Your task to perform on an android device: empty trash in the gmail app Image 0: 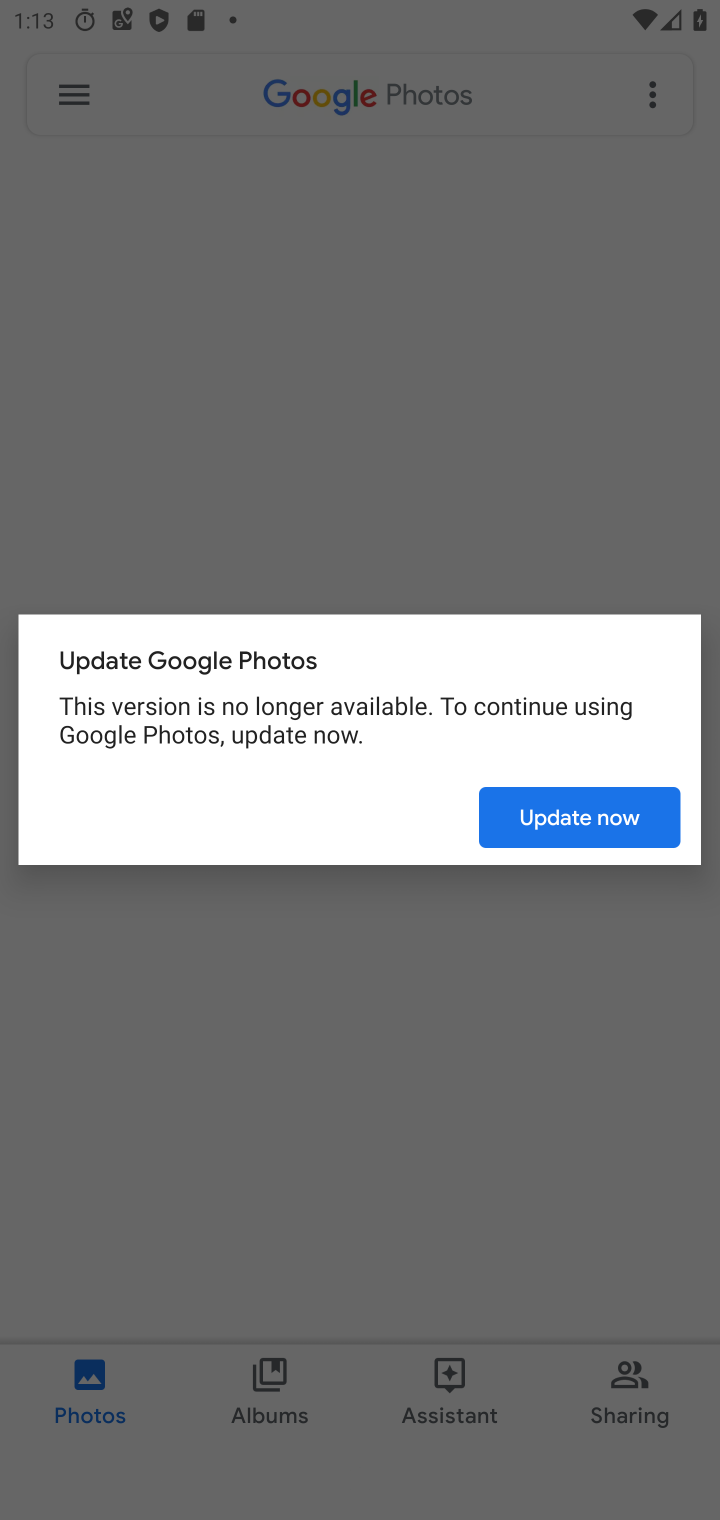
Step 0: press home button
Your task to perform on an android device: empty trash in the gmail app Image 1: 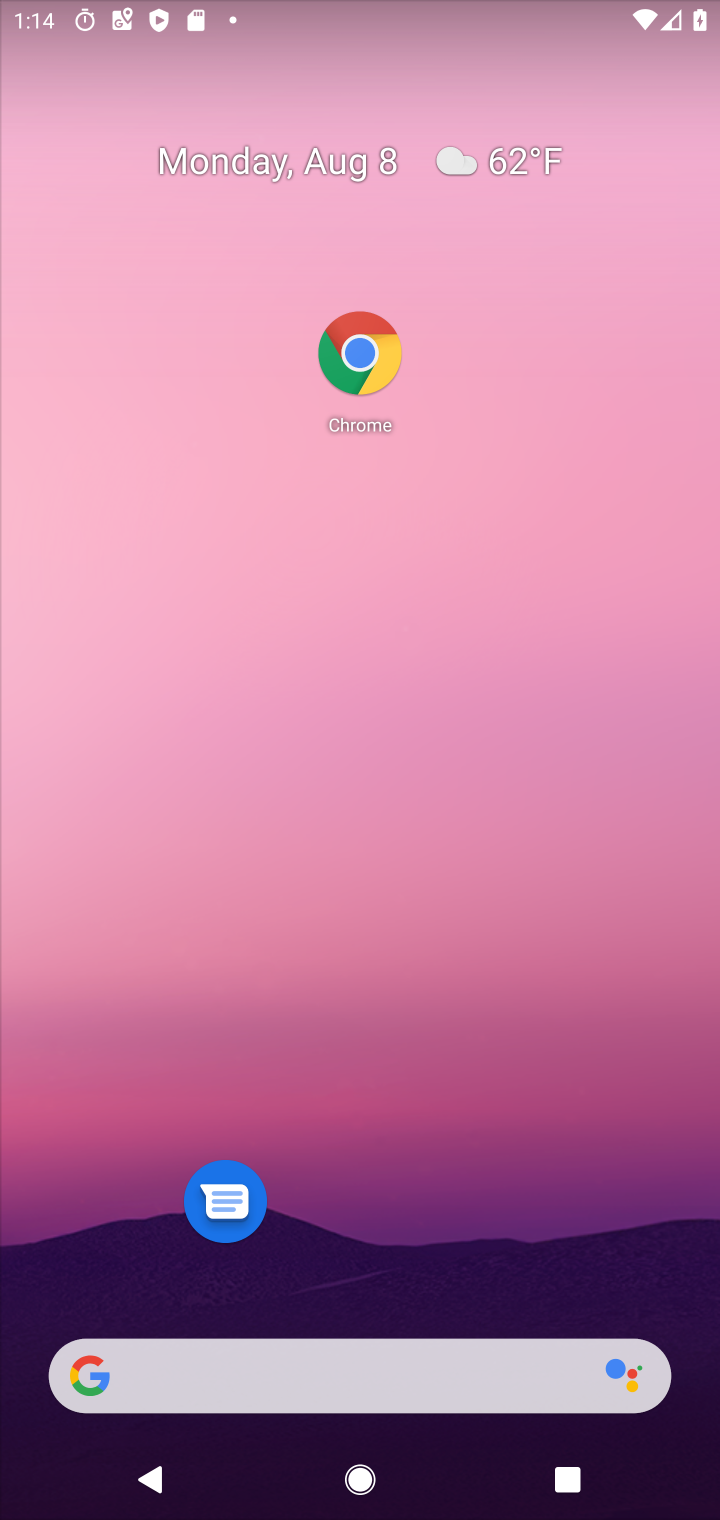
Step 1: drag from (430, 1411) to (555, 224)
Your task to perform on an android device: empty trash in the gmail app Image 2: 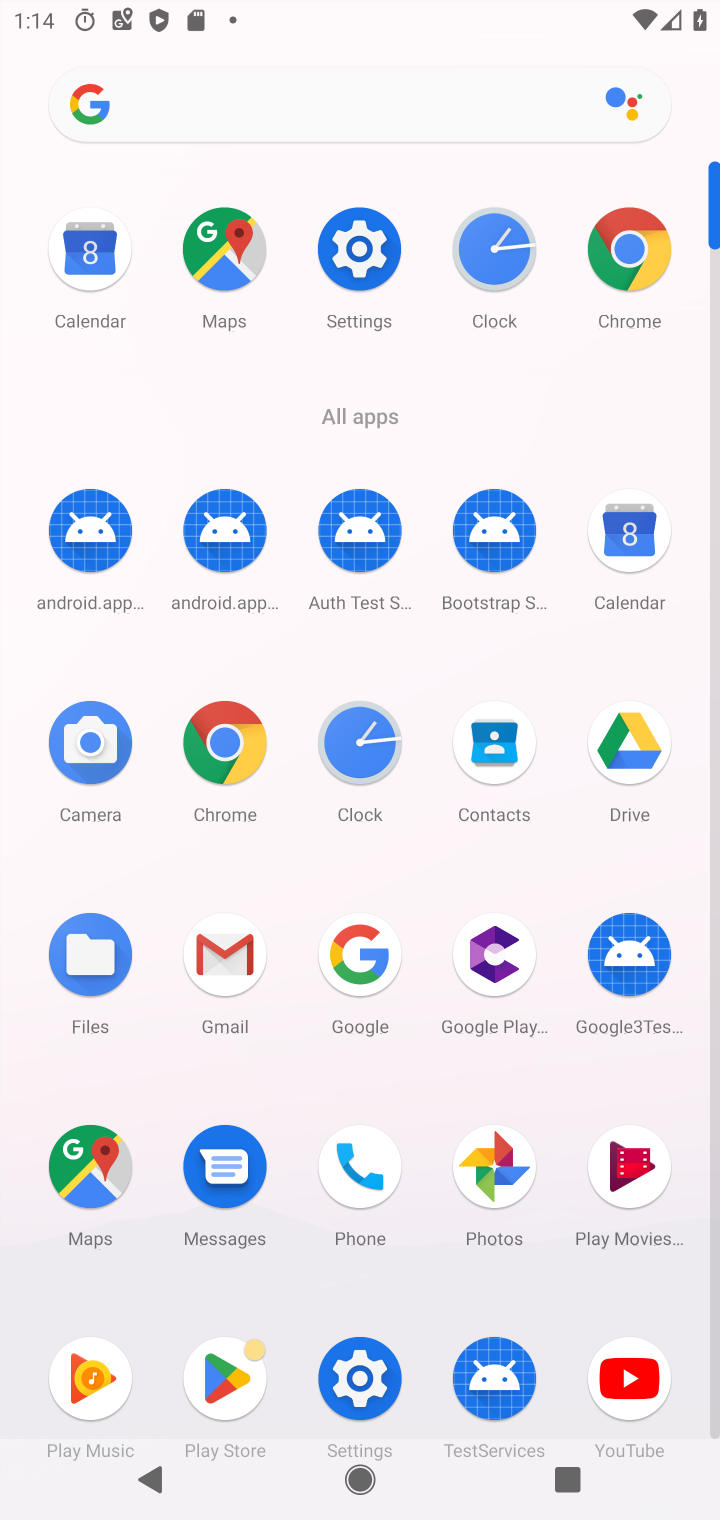
Step 2: drag from (192, 976) to (591, 1314)
Your task to perform on an android device: empty trash in the gmail app Image 3: 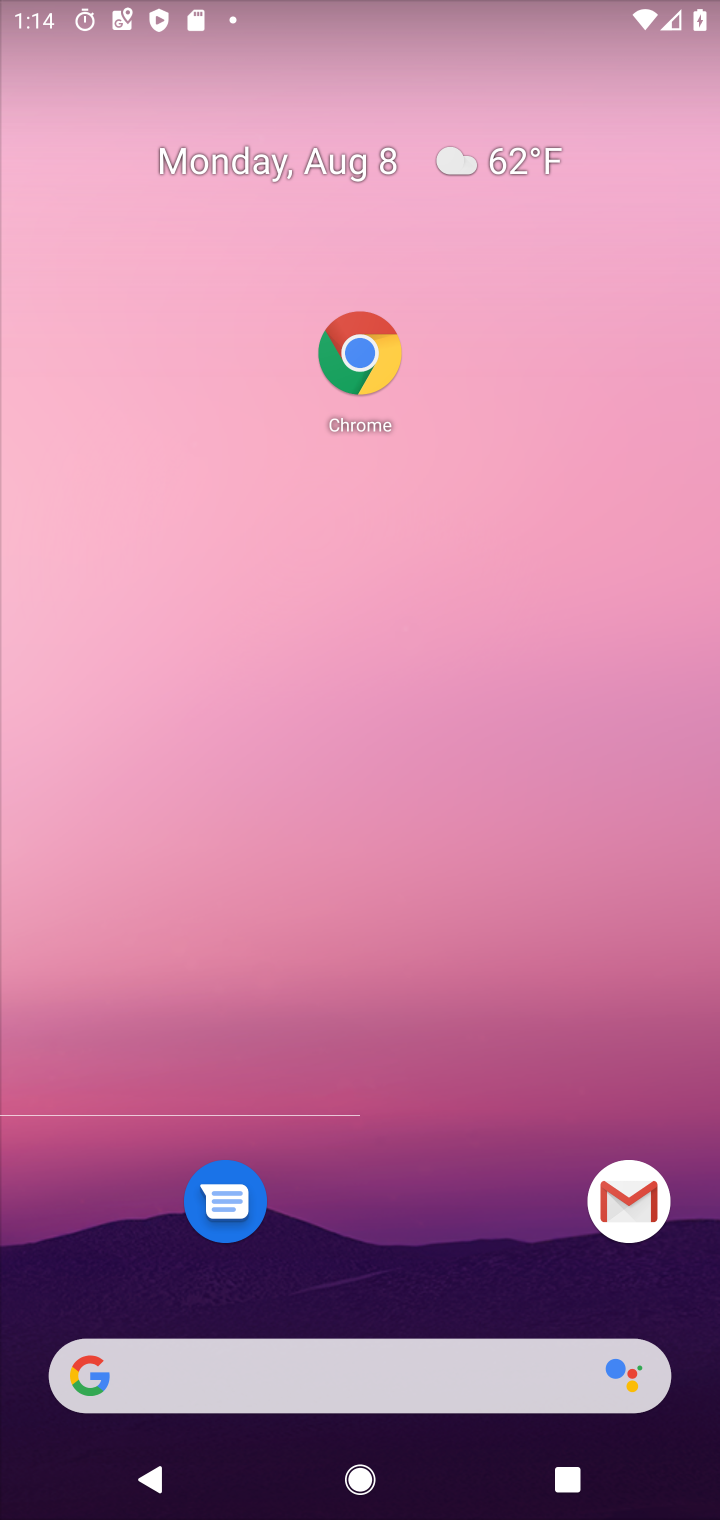
Step 3: click (624, 1193)
Your task to perform on an android device: empty trash in the gmail app Image 4: 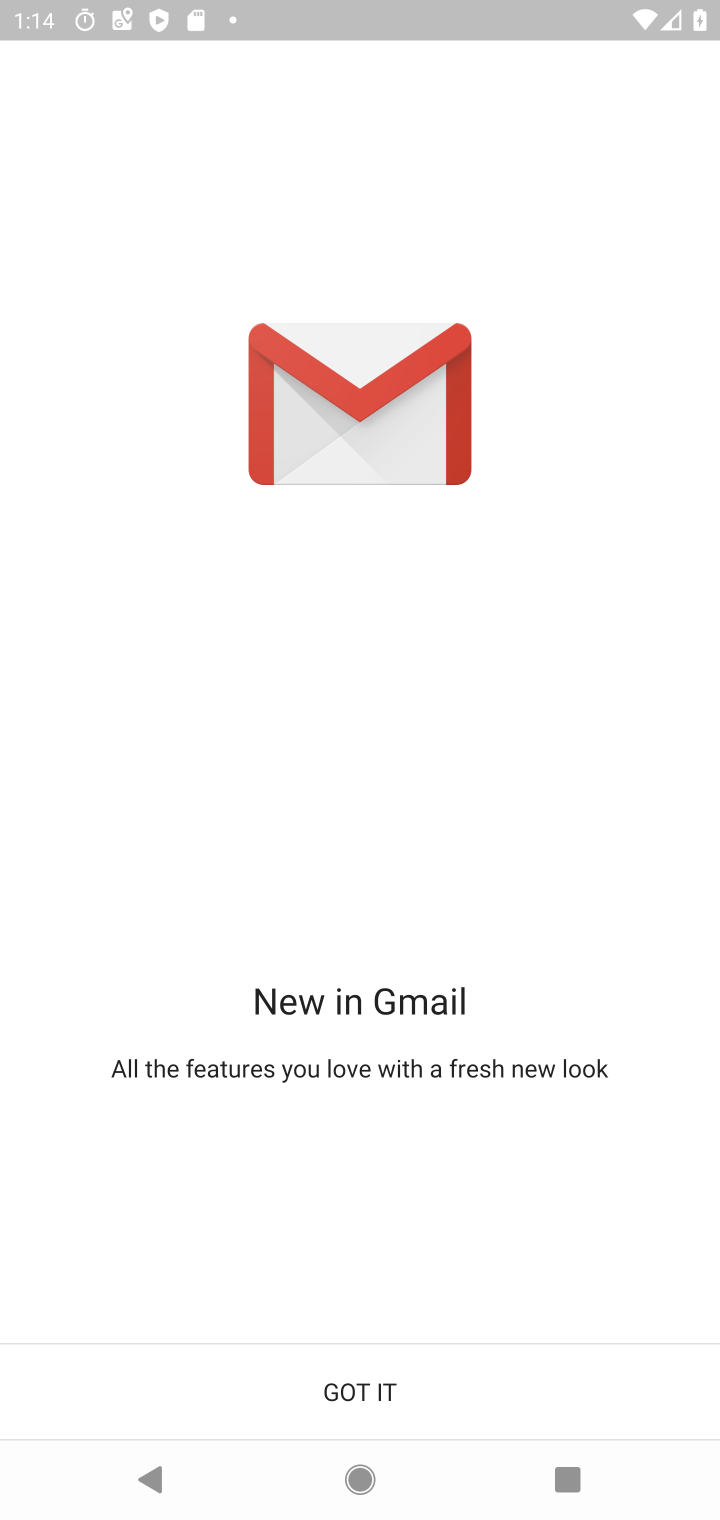
Step 4: click (396, 1386)
Your task to perform on an android device: empty trash in the gmail app Image 5: 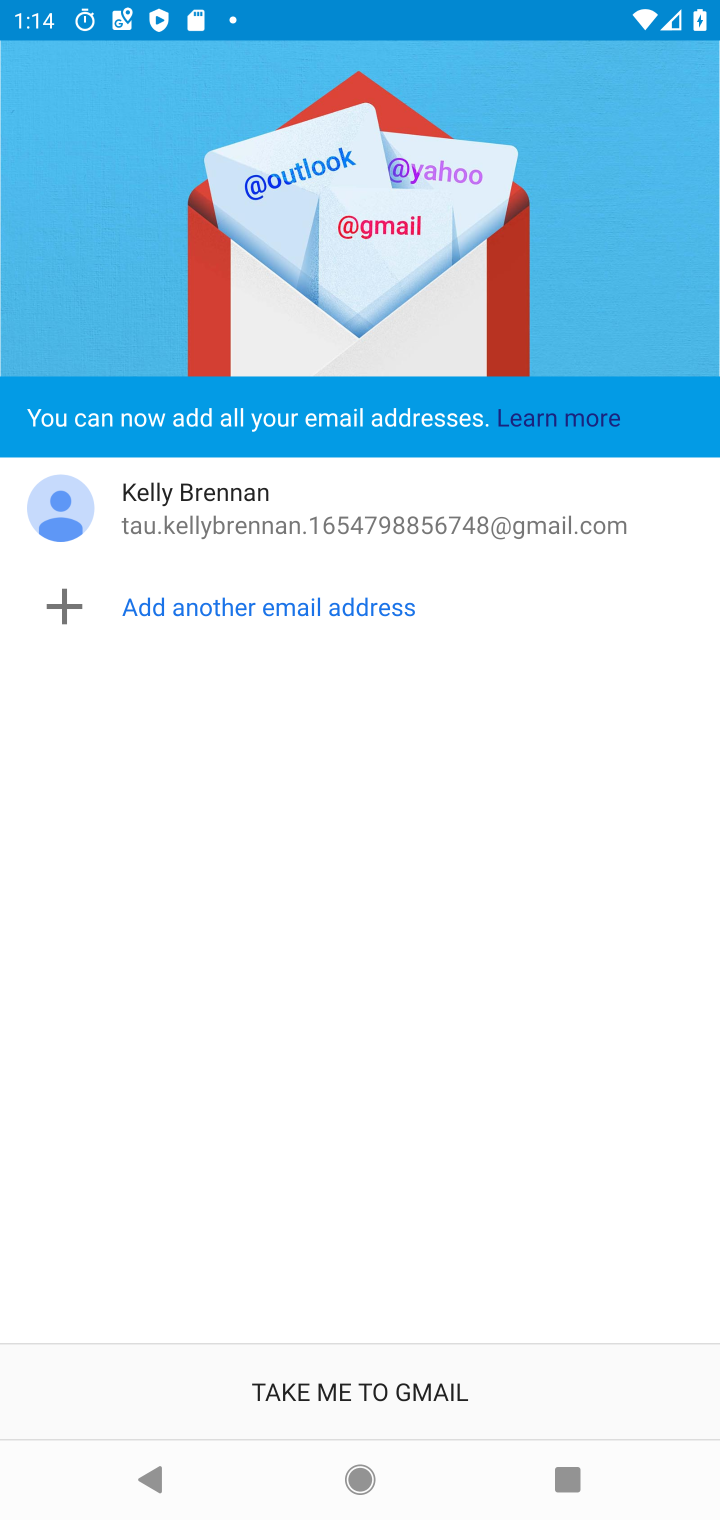
Step 5: click (383, 1356)
Your task to perform on an android device: empty trash in the gmail app Image 6: 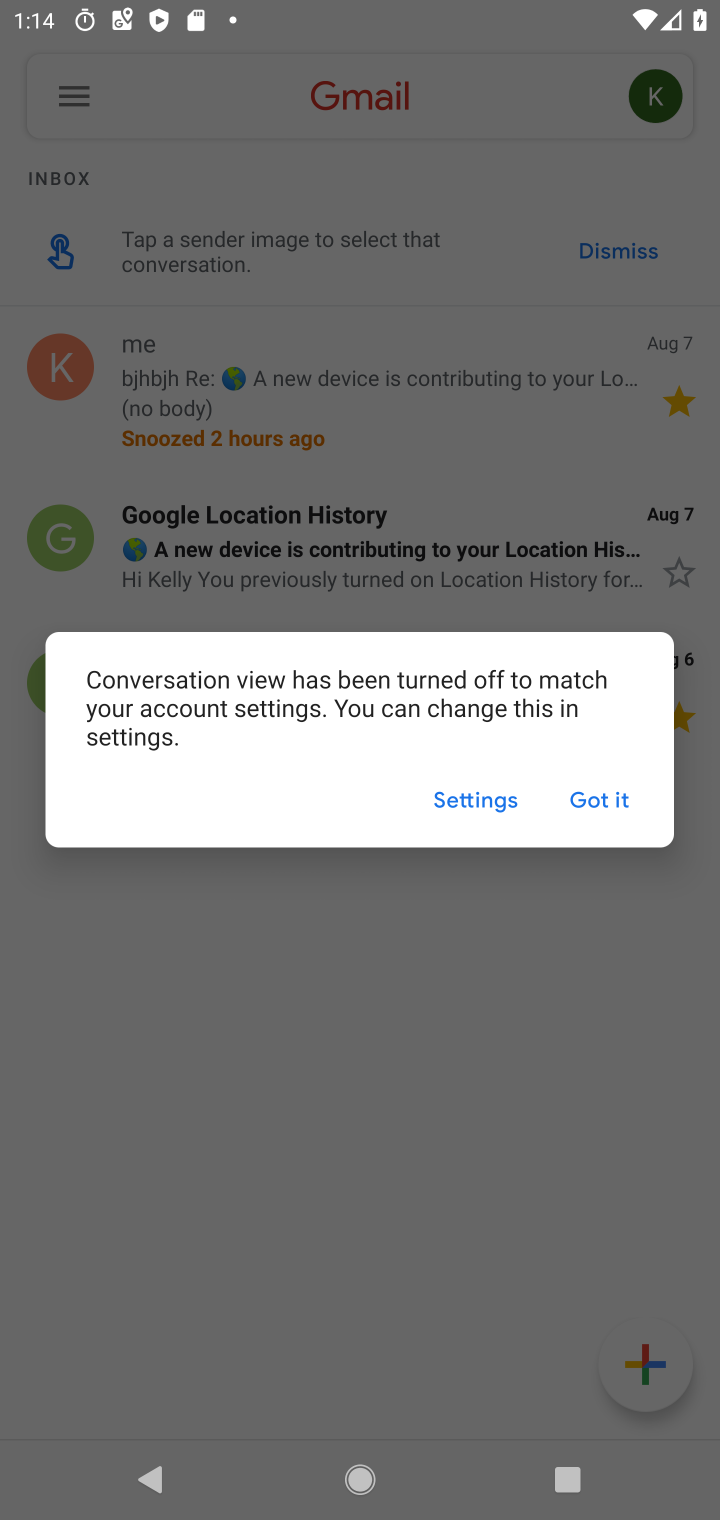
Step 6: click (590, 791)
Your task to perform on an android device: empty trash in the gmail app Image 7: 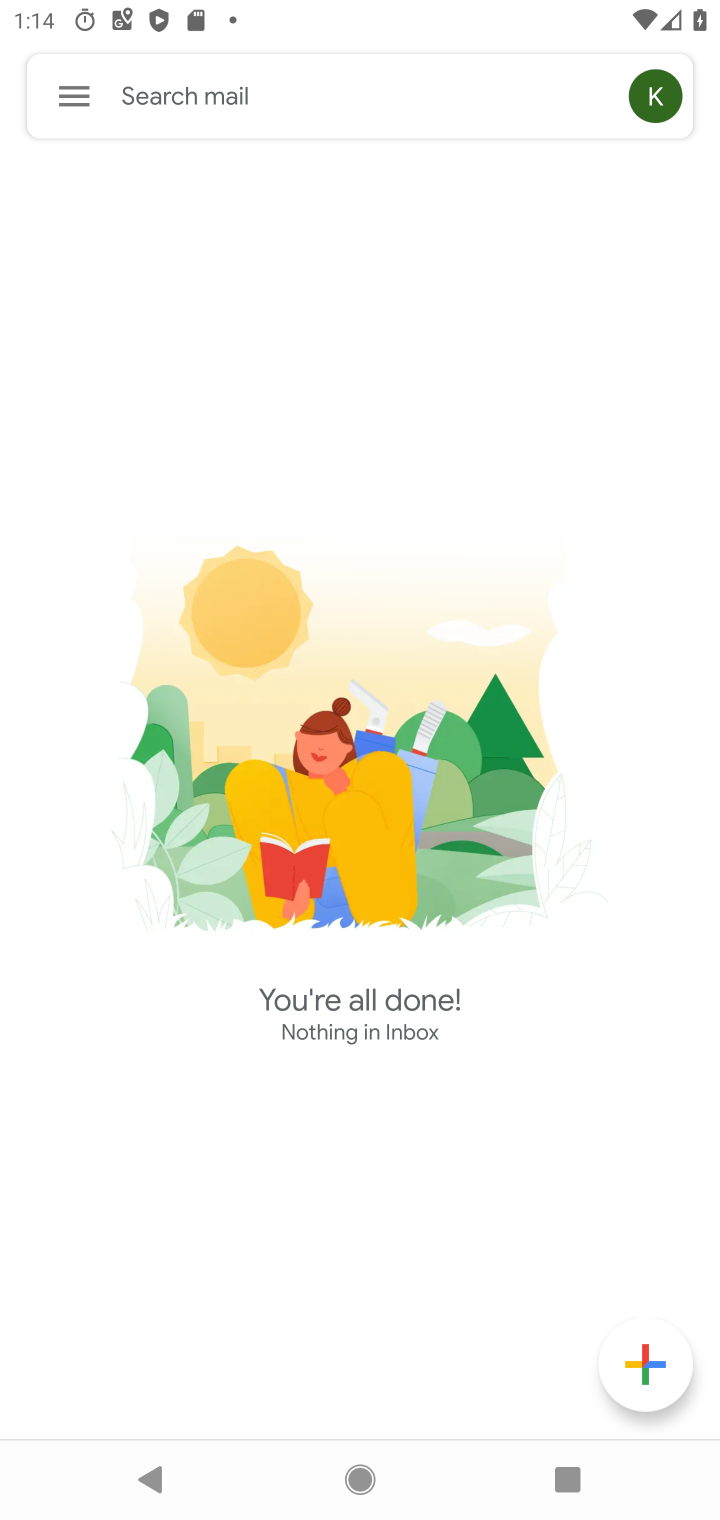
Step 7: click (77, 109)
Your task to perform on an android device: empty trash in the gmail app Image 8: 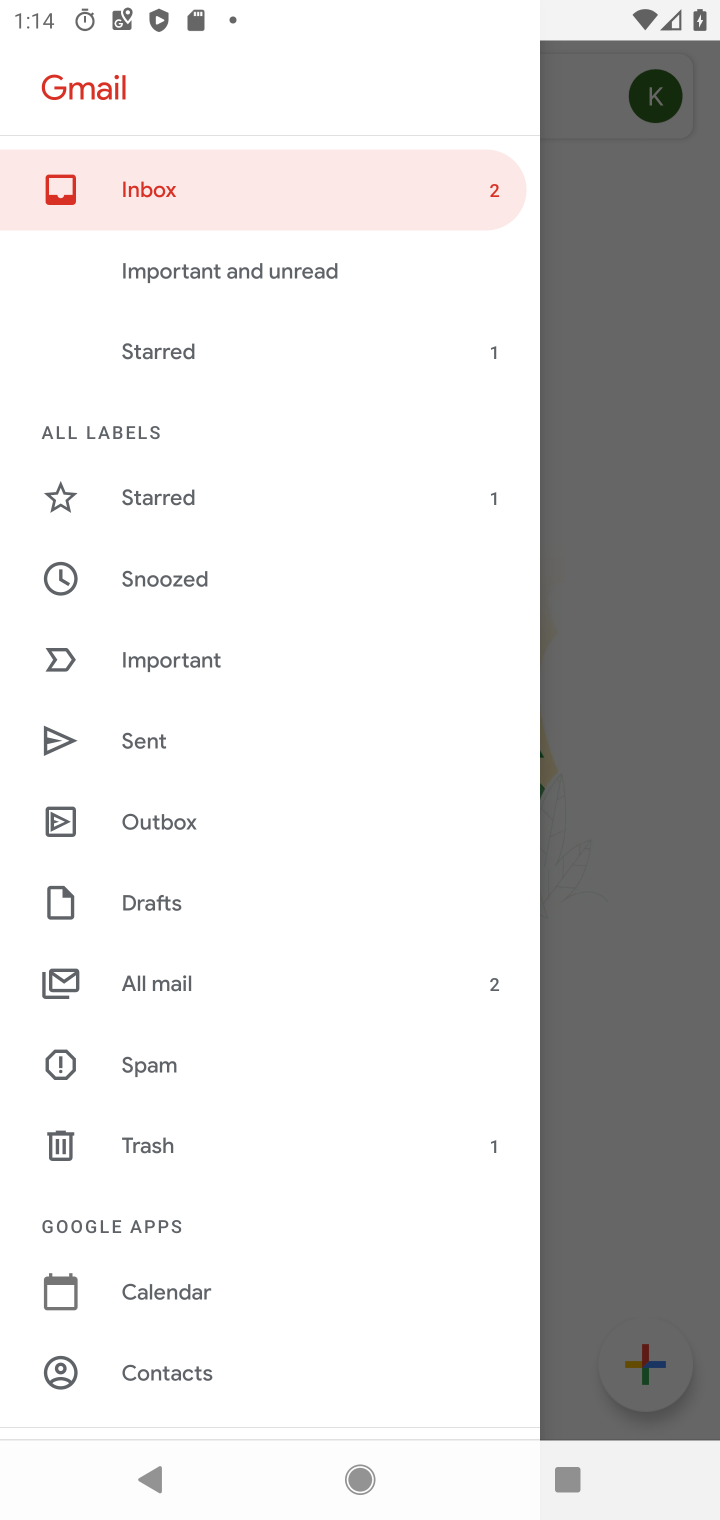
Step 8: click (143, 1153)
Your task to perform on an android device: empty trash in the gmail app Image 9: 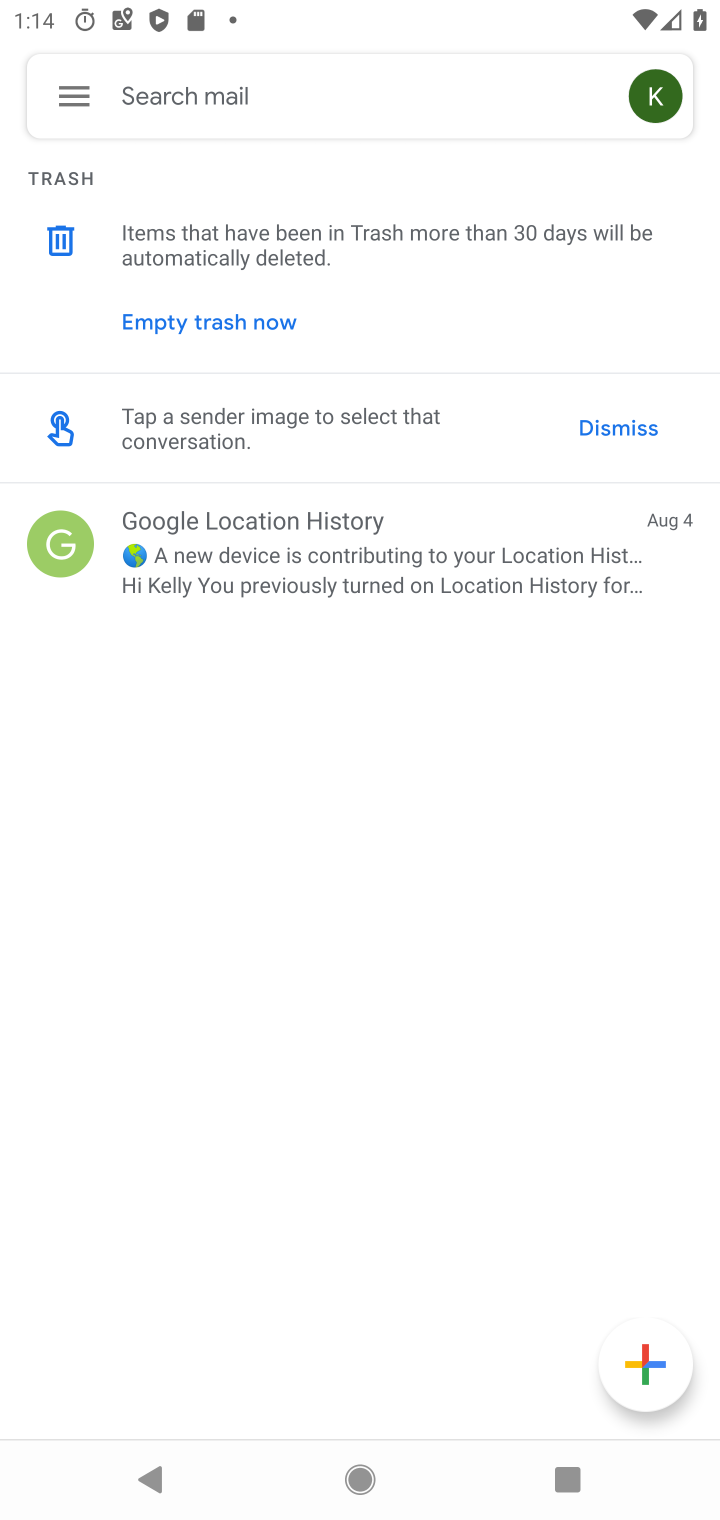
Step 9: click (232, 329)
Your task to perform on an android device: empty trash in the gmail app Image 10: 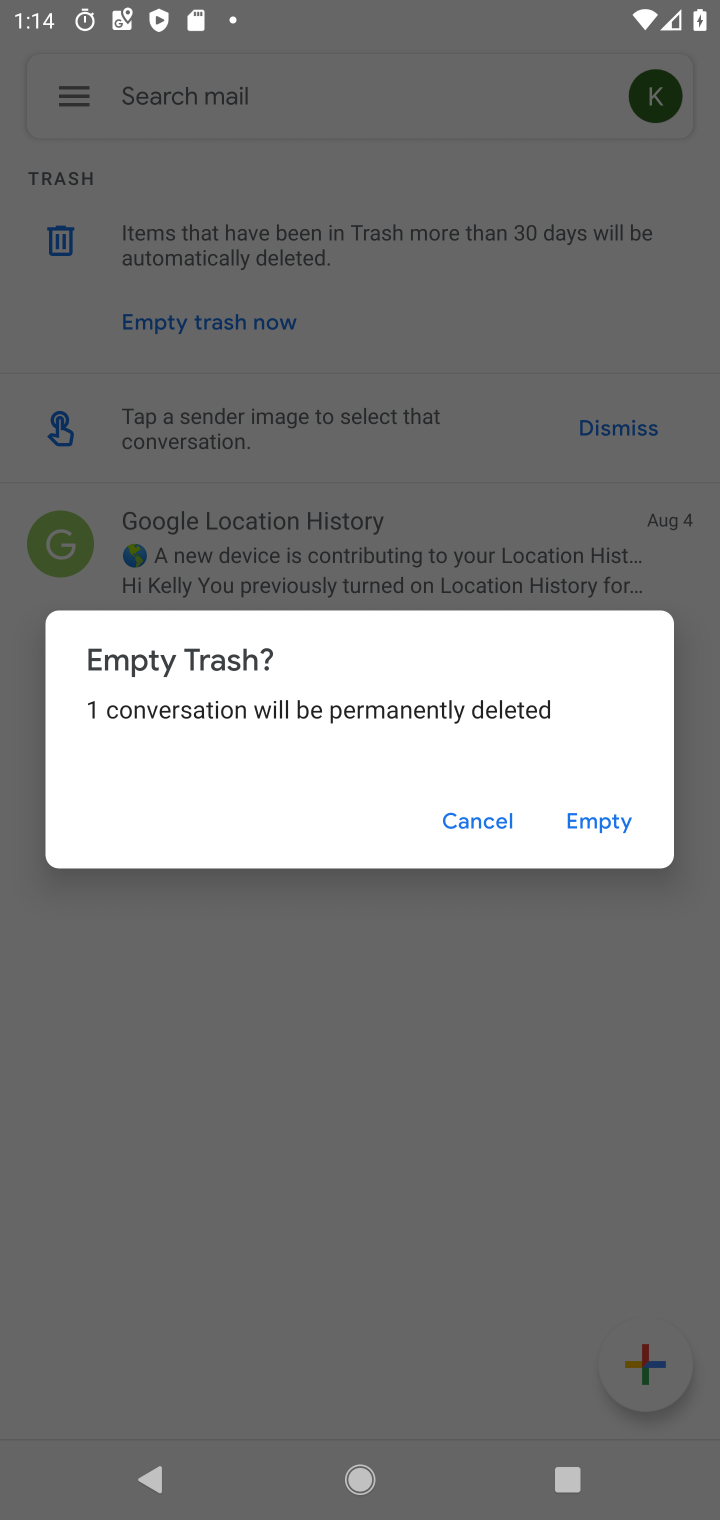
Step 10: click (610, 830)
Your task to perform on an android device: empty trash in the gmail app Image 11: 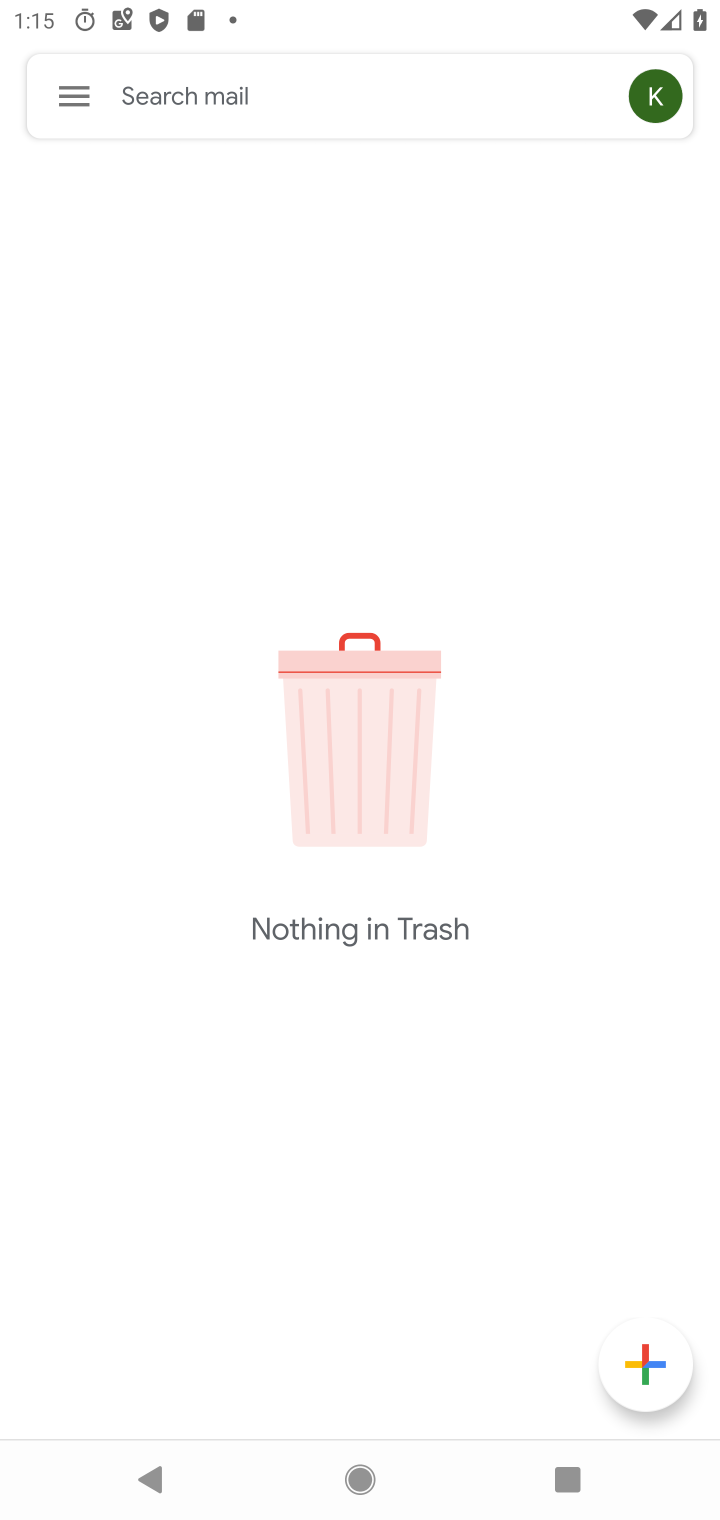
Step 11: click (80, 102)
Your task to perform on an android device: empty trash in the gmail app Image 12: 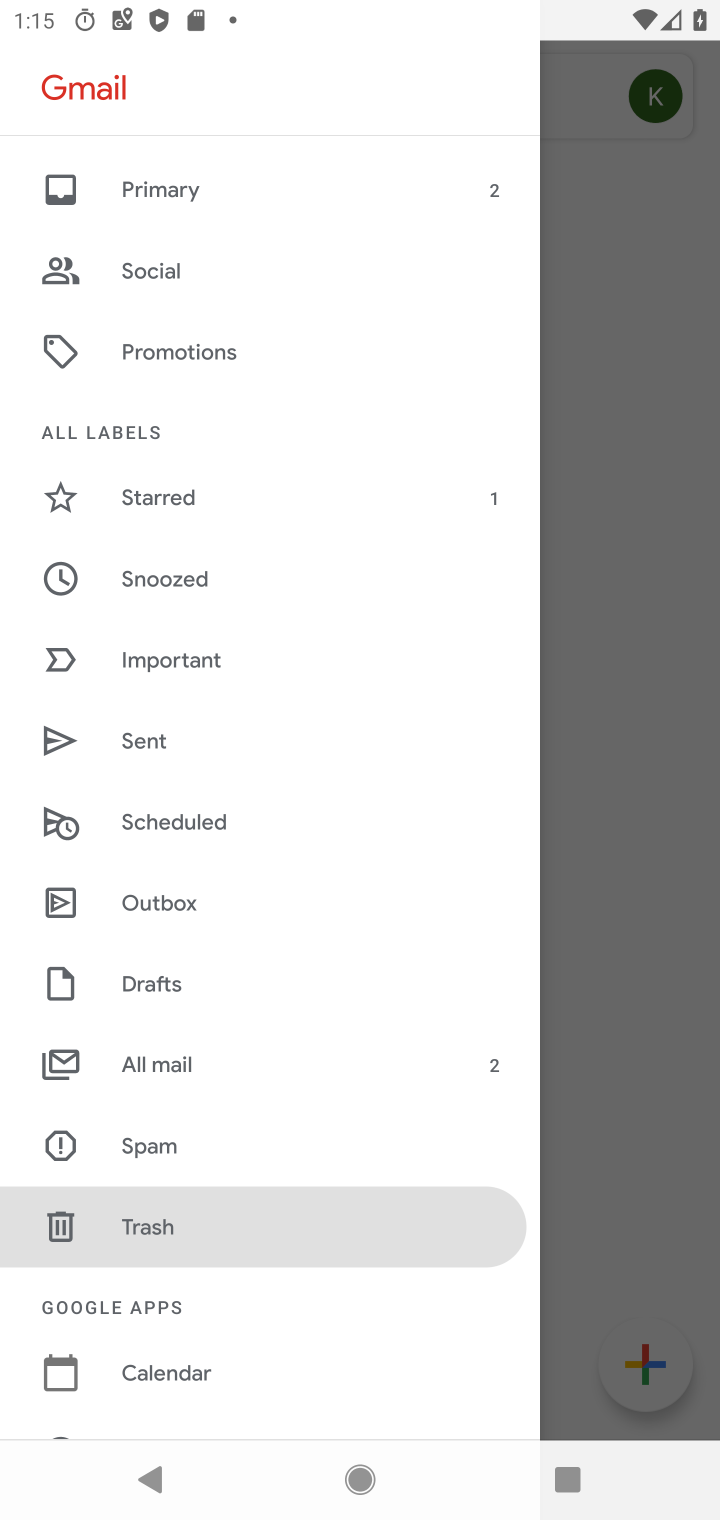
Step 12: click (153, 1230)
Your task to perform on an android device: empty trash in the gmail app Image 13: 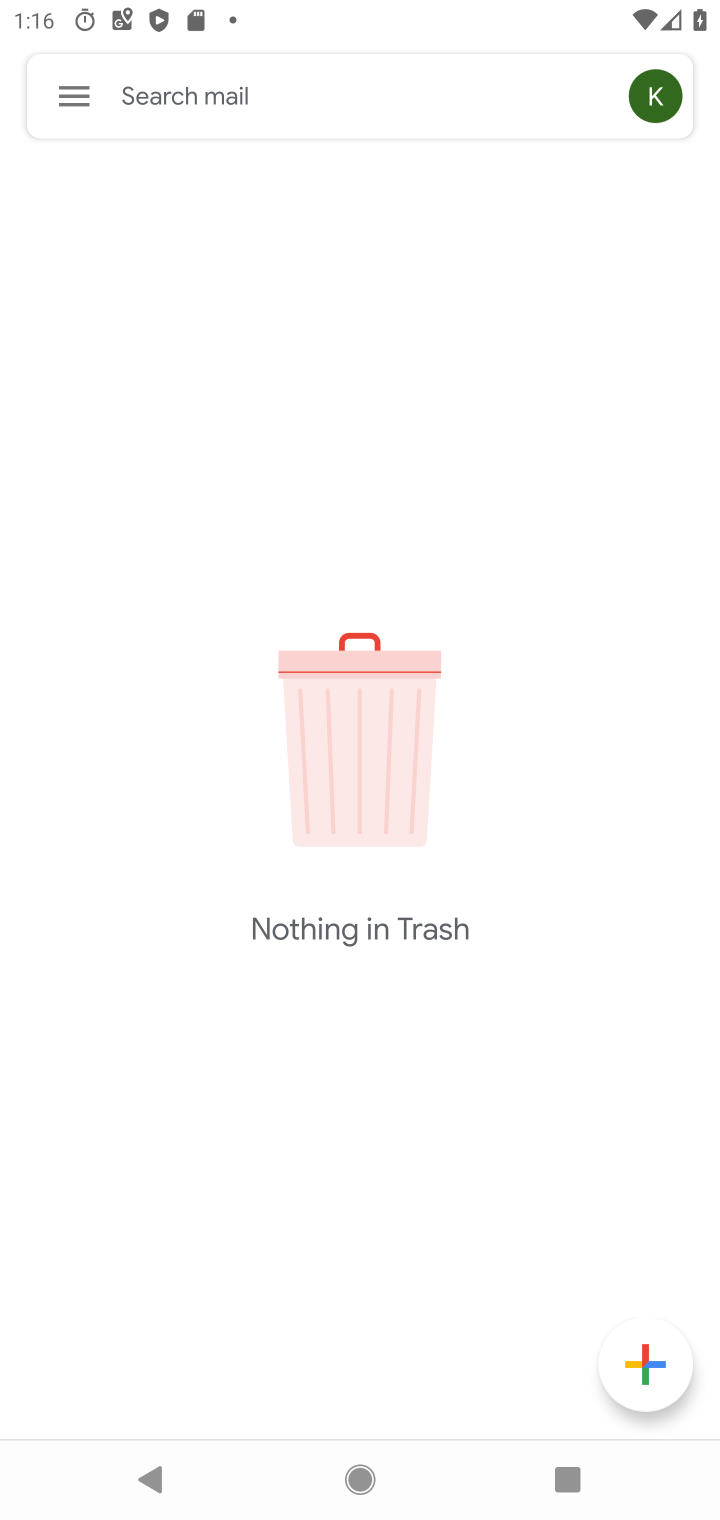
Step 13: task complete